Your task to perform on an android device: Do I have any events today? Image 0: 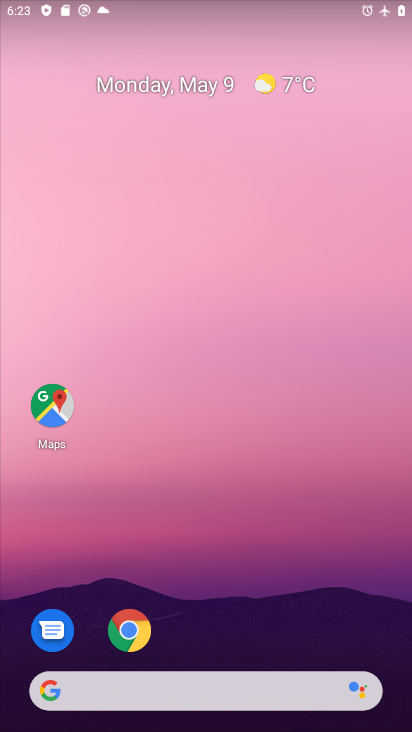
Step 0: drag from (296, 637) to (228, 189)
Your task to perform on an android device: Do I have any events today? Image 1: 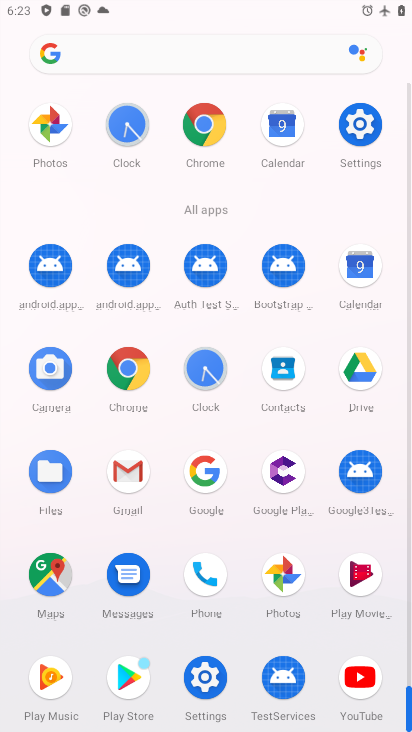
Step 1: click (374, 277)
Your task to perform on an android device: Do I have any events today? Image 2: 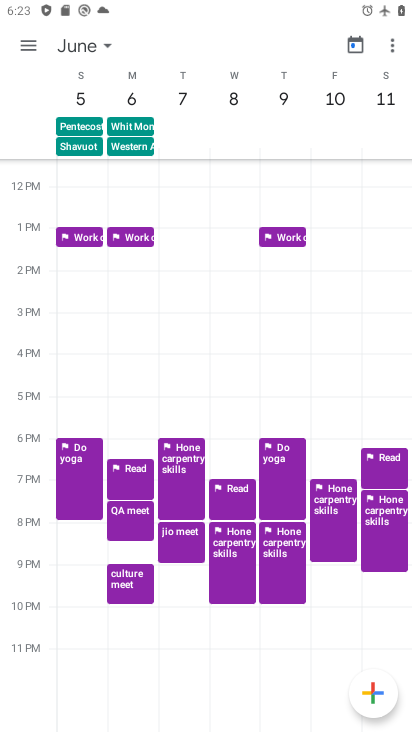
Step 2: click (84, 47)
Your task to perform on an android device: Do I have any events today? Image 3: 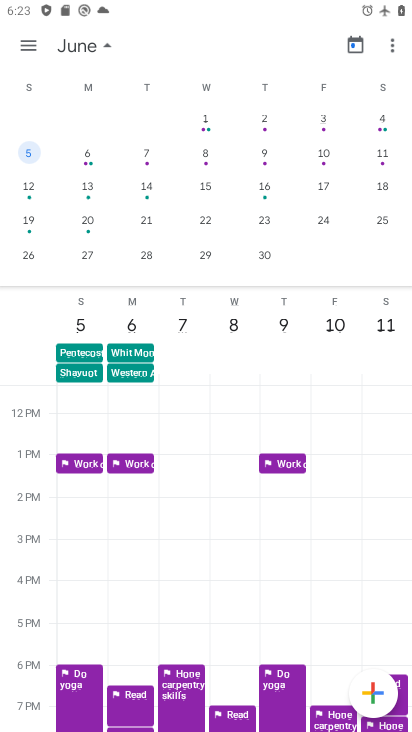
Step 3: drag from (71, 208) to (403, 198)
Your task to perform on an android device: Do I have any events today? Image 4: 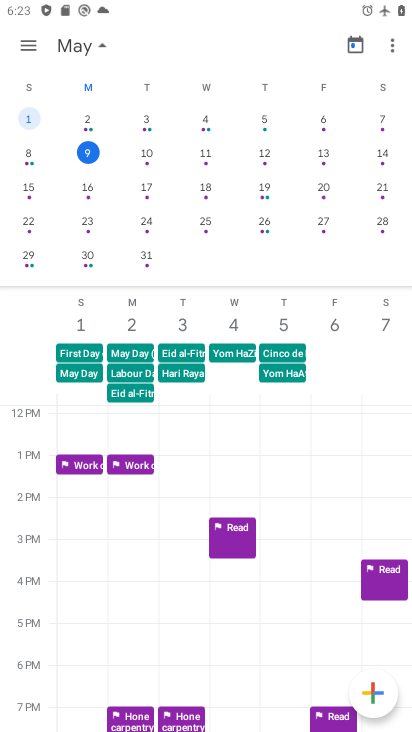
Step 4: click (37, 46)
Your task to perform on an android device: Do I have any events today? Image 5: 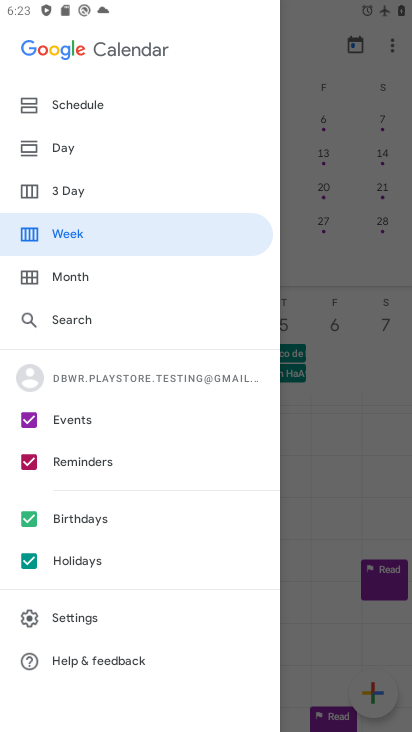
Step 5: click (66, 148)
Your task to perform on an android device: Do I have any events today? Image 6: 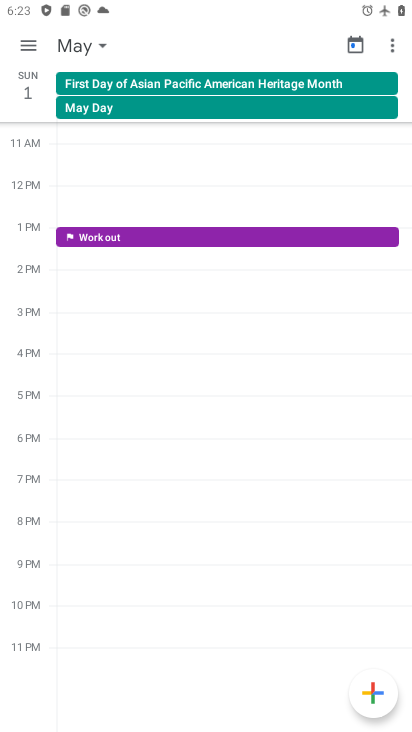
Step 6: click (80, 55)
Your task to perform on an android device: Do I have any events today? Image 7: 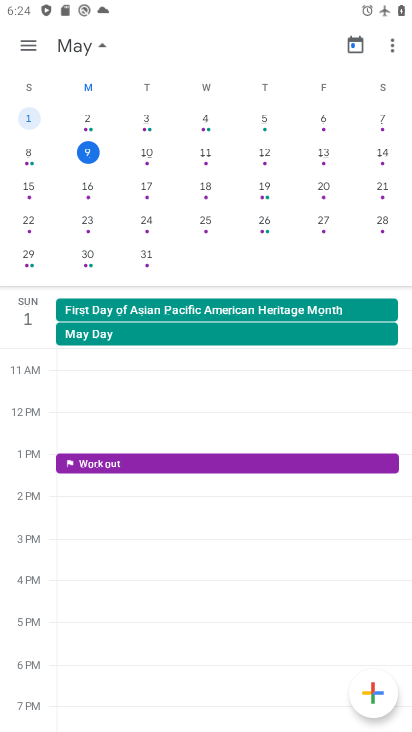
Step 7: click (91, 163)
Your task to perform on an android device: Do I have any events today? Image 8: 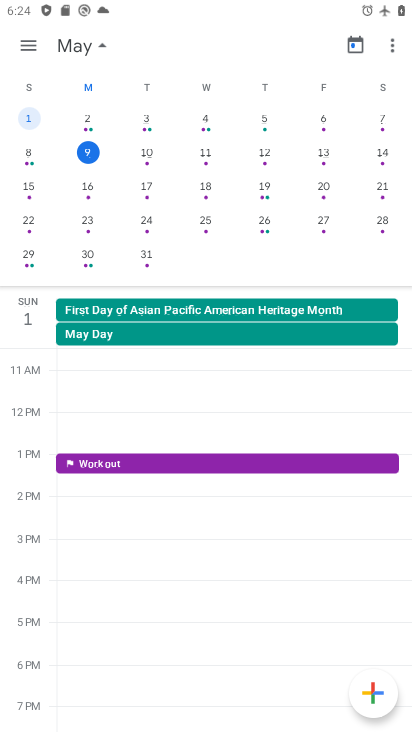
Step 8: click (91, 163)
Your task to perform on an android device: Do I have any events today? Image 9: 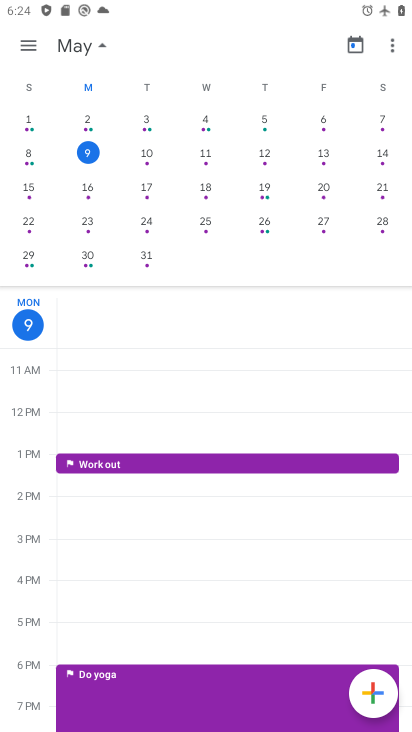
Step 9: task complete